Your task to perform on an android device: Go to Google maps Image 0: 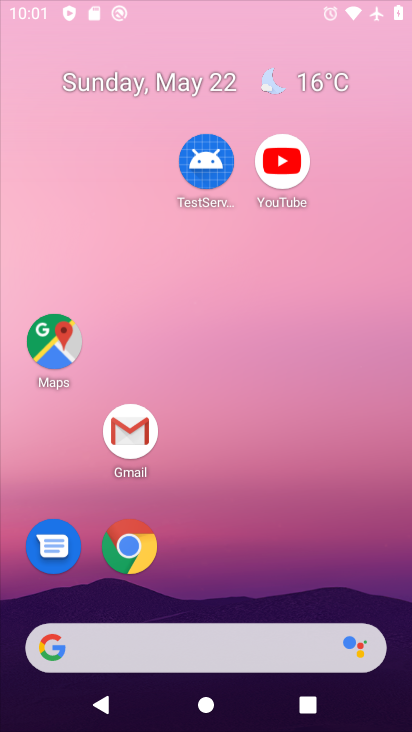
Step 0: drag from (252, 707) to (78, 8)
Your task to perform on an android device: Go to Google maps Image 1: 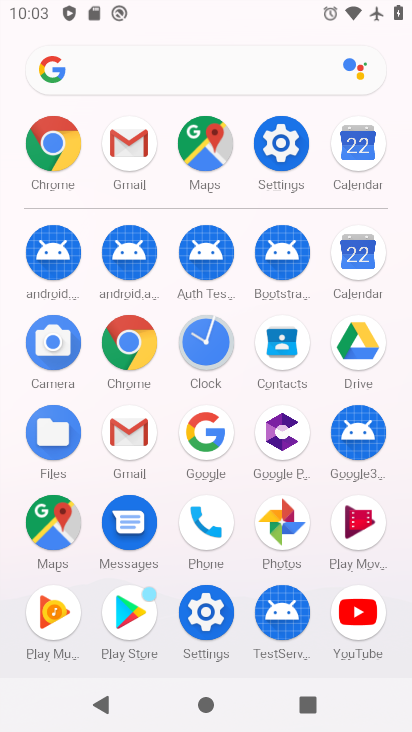
Step 1: click (62, 514)
Your task to perform on an android device: Go to Google maps Image 2: 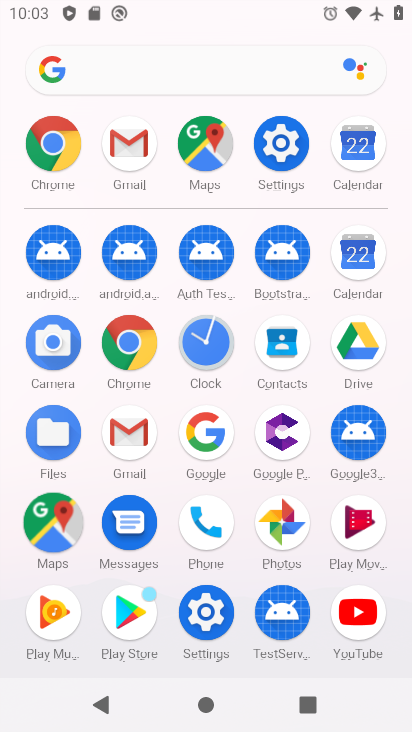
Step 2: click (64, 512)
Your task to perform on an android device: Go to Google maps Image 3: 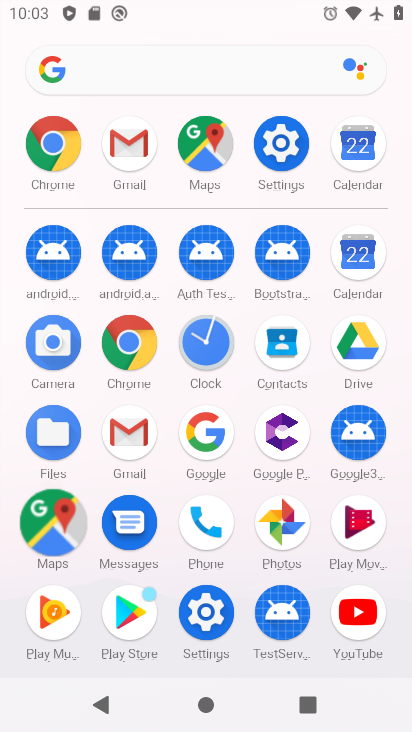
Step 3: click (64, 512)
Your task to perform on an android device: Go to Google maps Image 4: 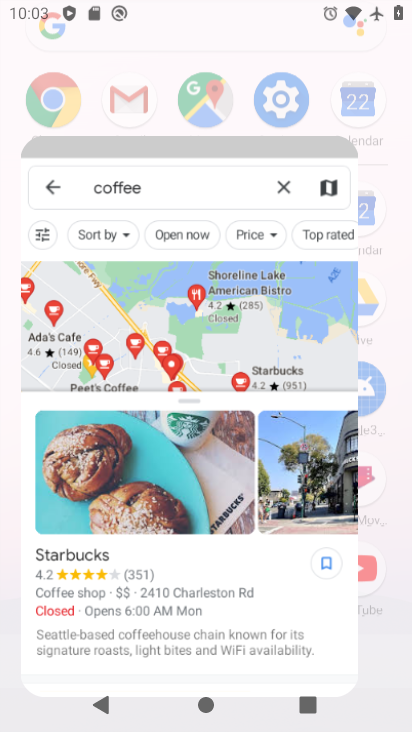
Step 4: click (64, 517)
Your task to perform on an android device: Go to Google maps Image 5: 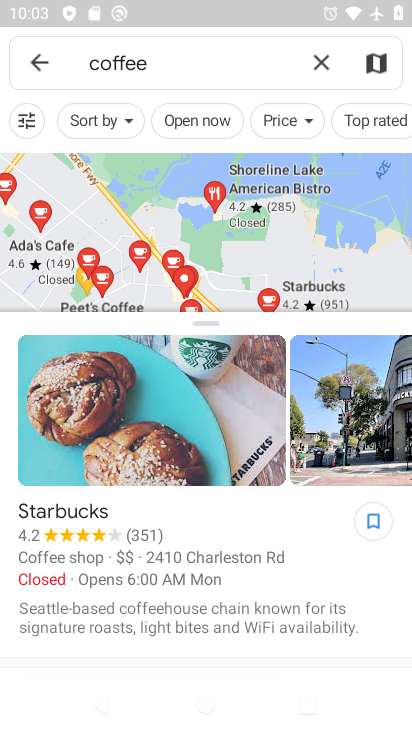
Step 5: task complete